Your task to perform on an android device: empty trash in google photos Image 0: 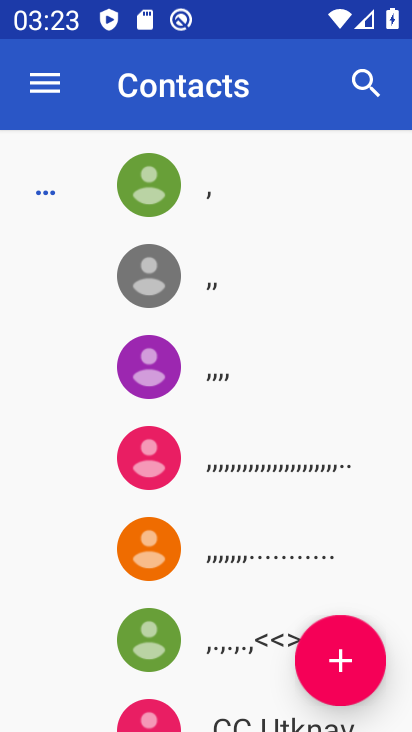
Step 0: press back button
Your task to perform on an android device: empty trash in google photos Image 1: 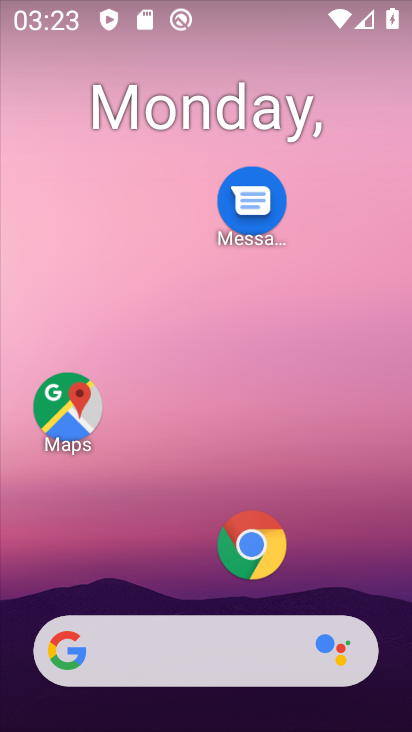
Step 1: drag from (169, 544) to (276, 135)
Your task to perform on an android device: empty trash in google photos Image 2: 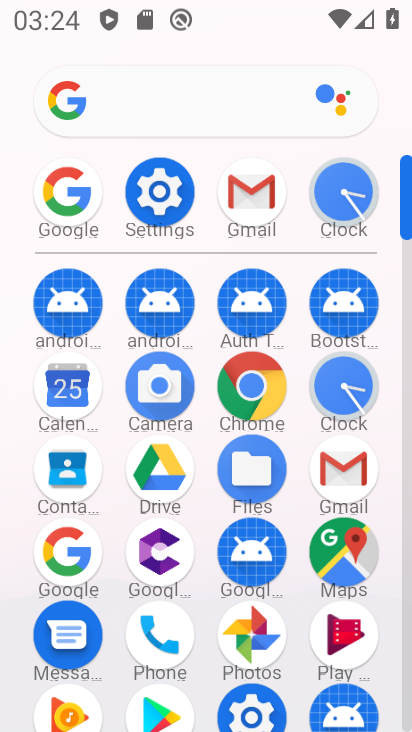
Step 2: click (241, 629)
Your task to perform on an android device: empty trash in google photos Image 3: 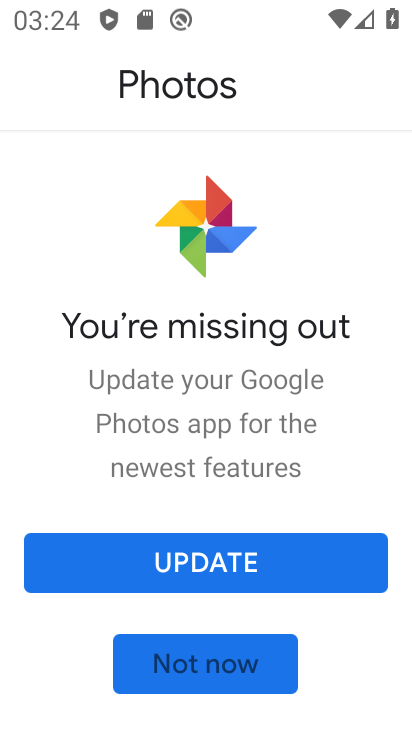
Step 3: click (212, 660)
Your task to perform on an android device: empty trash in google photos Image 4: 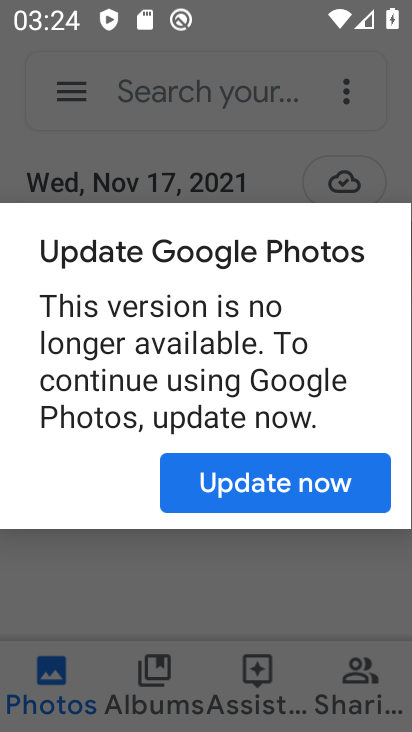
Step 4: click (263, 481)
Your task to perform on an android device: empty trash in google photos Image 5: 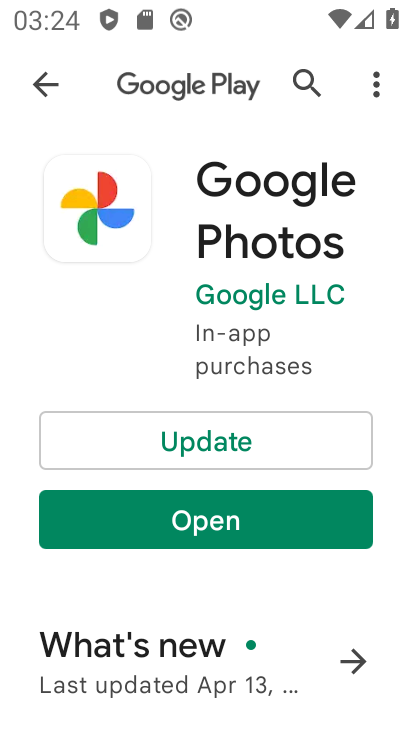
Step 5: click (213, 524)
Your task to perform on an android device: empty trash in google photos Image 6: 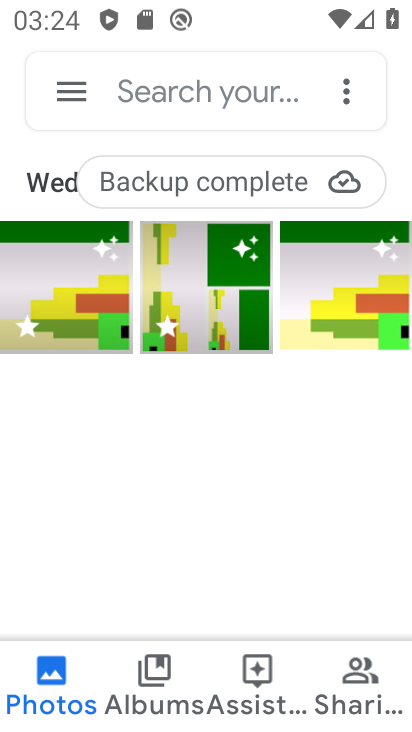
Step 6: click (58, 89)
Your task to perform on an android device: empty trash in google photos Image 7: 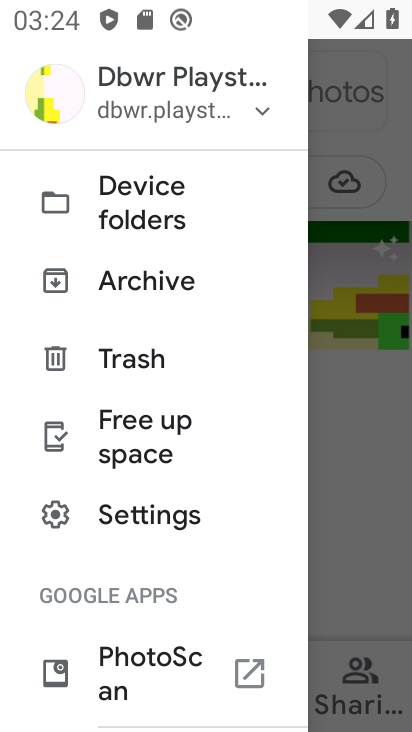
Step 7: click (129, 360)
Your task to perform on an android device: empty trash in google photos Image 8: 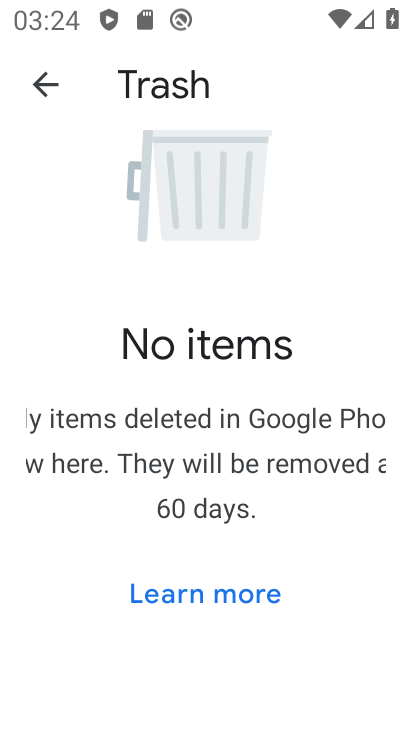
Step 8: task complete